Your task to perform on an android device: Open accessibility settings Image 0: 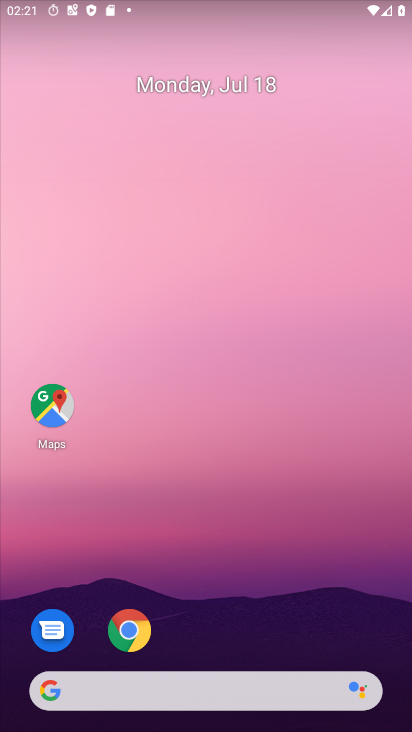
Step 0: drag from (219, 629) to (264, 33)
Your task to perform on an android device: Open accessibility settings Image 1: 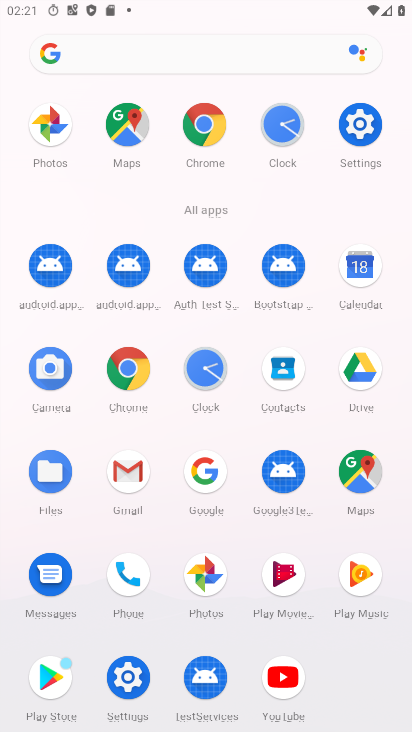
Step 1: click (363, 134)
Your task to perform on an android device: Open accessibility settings Image 2: 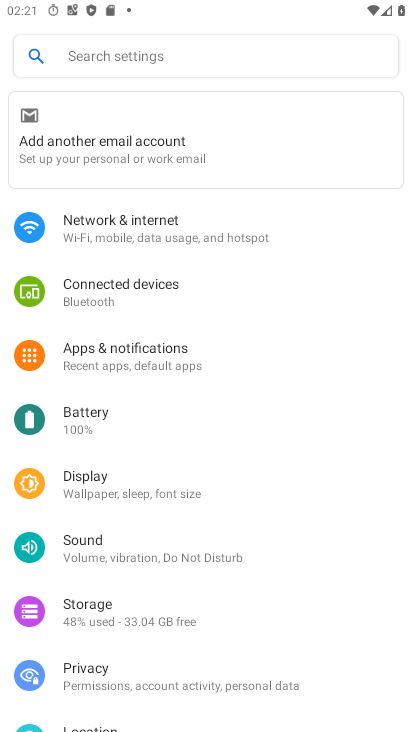
Step 2: drag from (114, 606) to (124, 210)
Your task to perform on an android device: Open accessibility settings Image 3: 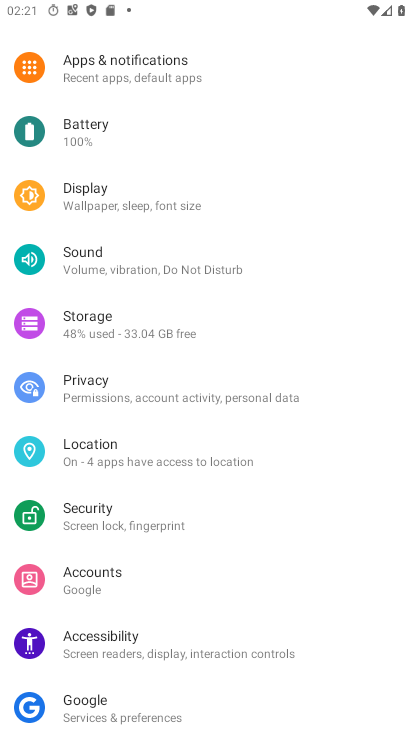
Step 3: click (84, 654)
Your task to perform on an android device: Open accessibility settings Image 4: 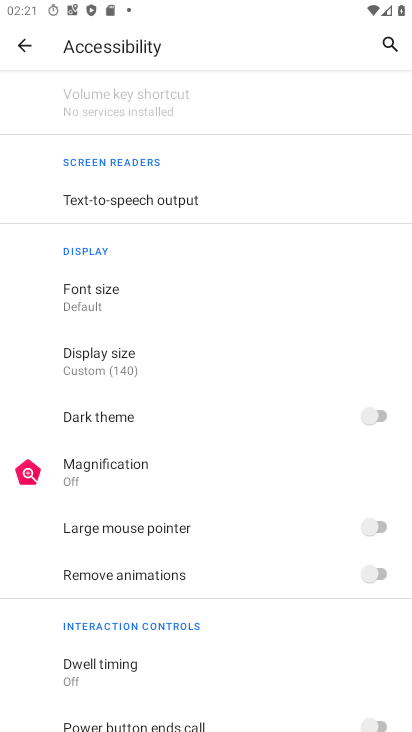
Step 4: task complete